Your task to perform on an android device: Set an alarmfor 5pm Image 0: 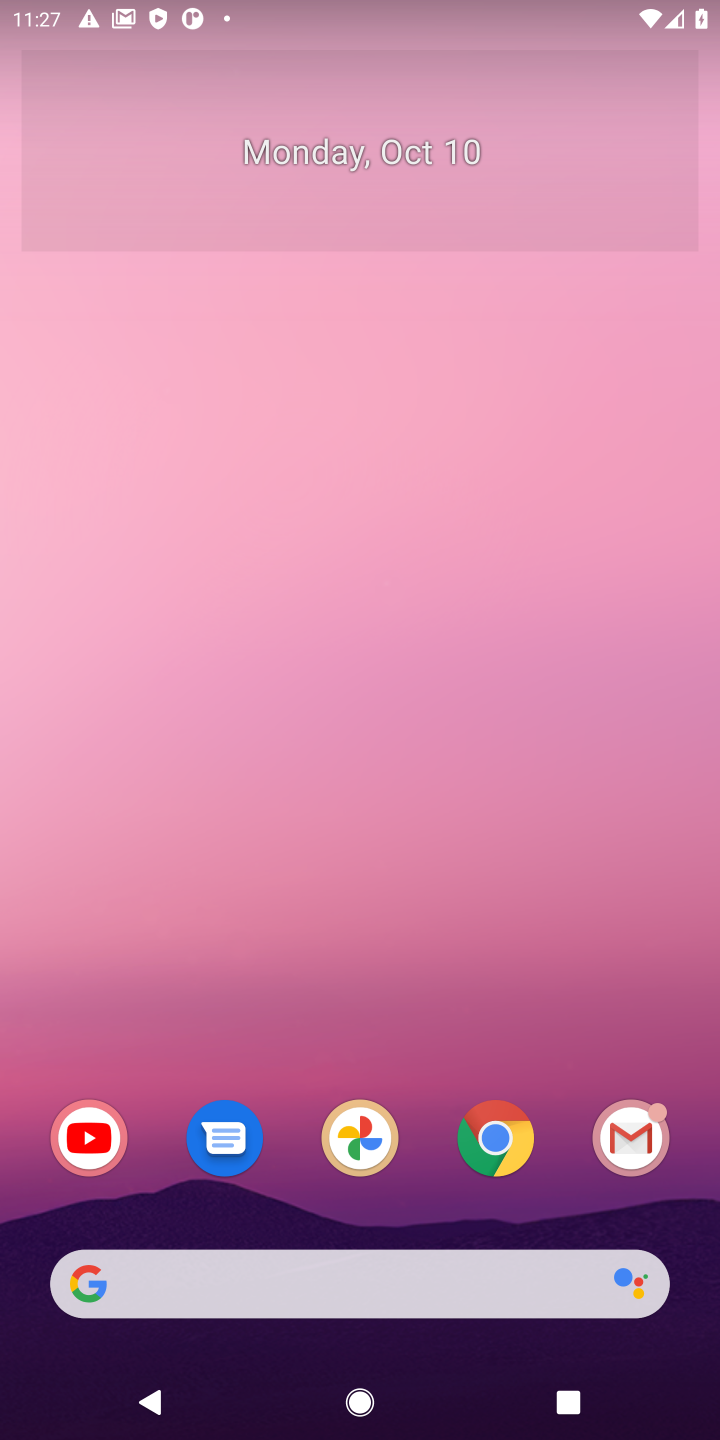
Step 0: press home button
Your task to perform on an android device: Set an alarmfor 5pm Image 1: 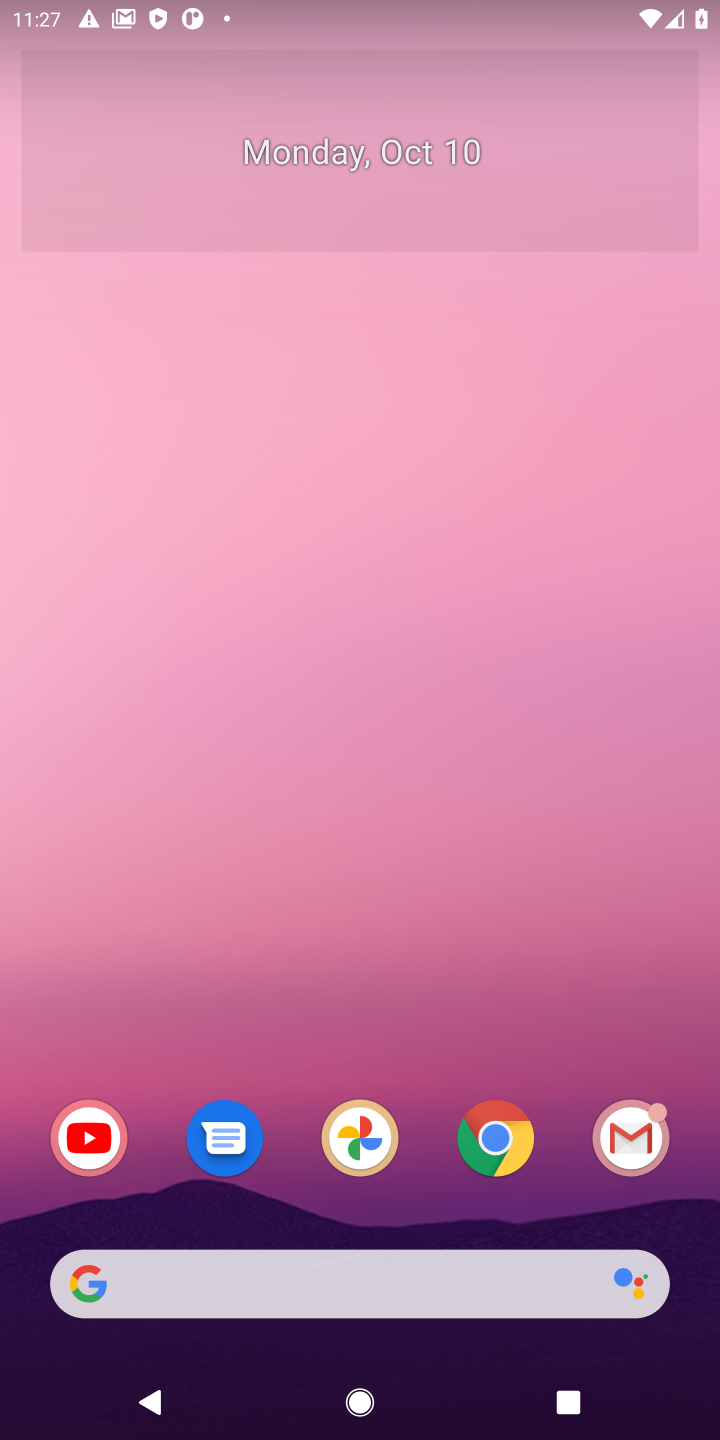
Step 1: drag from (403, 1196) to (344, 329)
Your task to perform on an android device: Set an alarmfor 5pm Image 2: 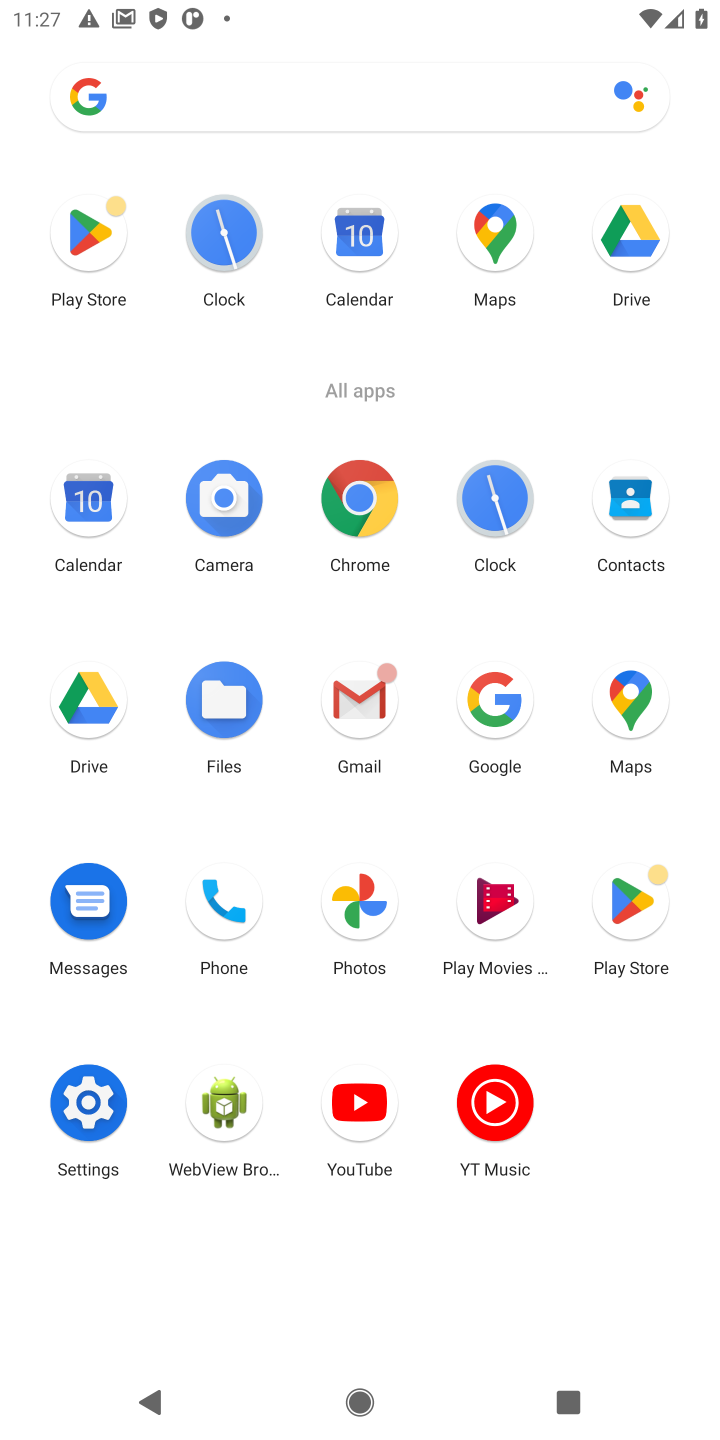
Step 2: click (506, 483)
Your task to perform on an android device: Set an alarmfor 5pm Image 3: 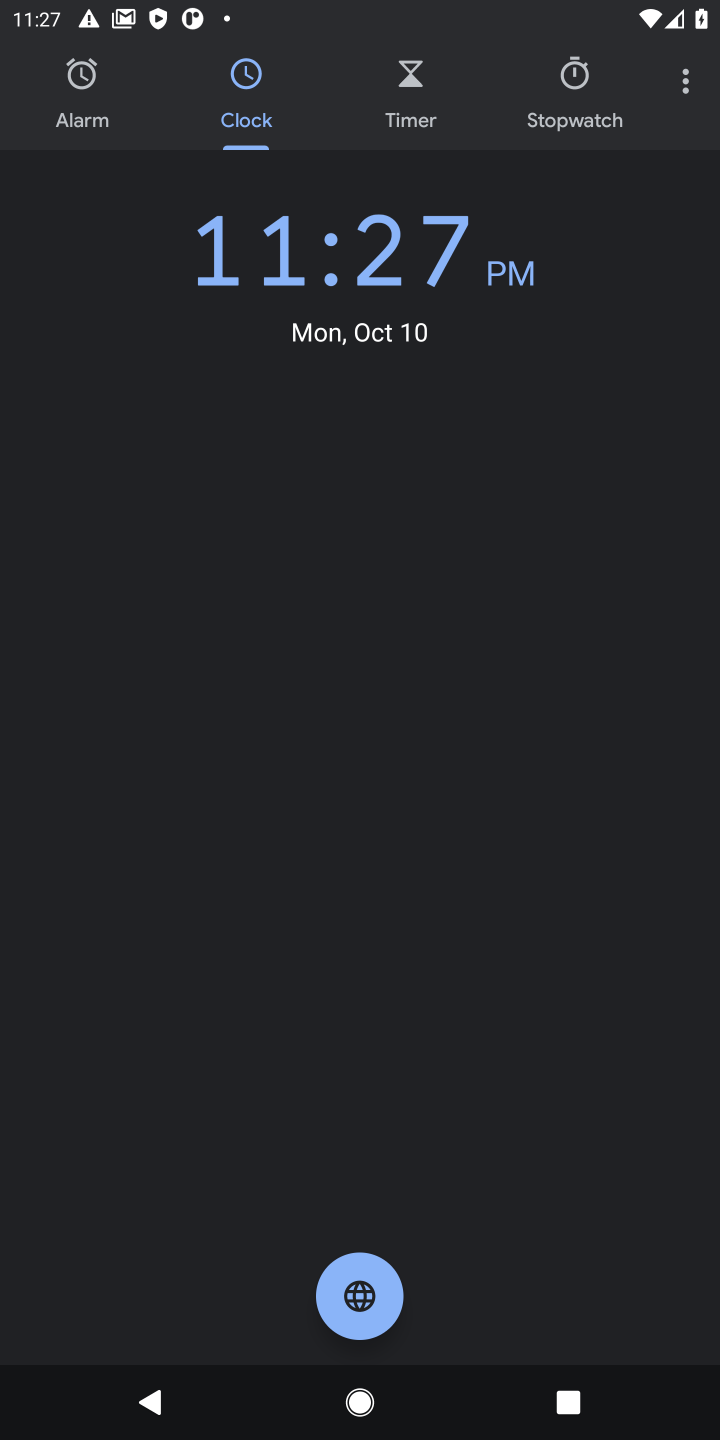
Step 3: click (90, 86)
Your task to perform on an android device: Set an alarmfor 5pm Image 4: 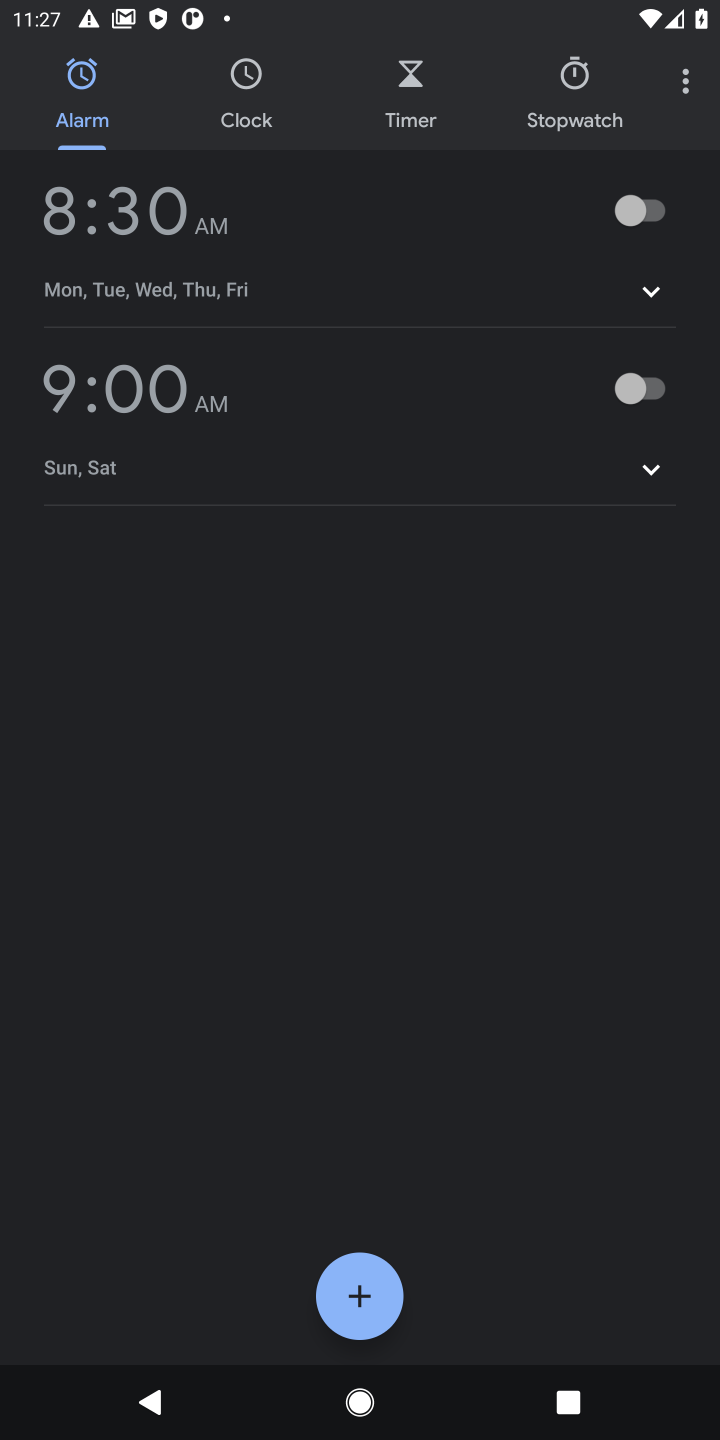
Step 4: click (120, 220)
Your task to perform on an android device: Set an alarmfor 5pm Image 5: 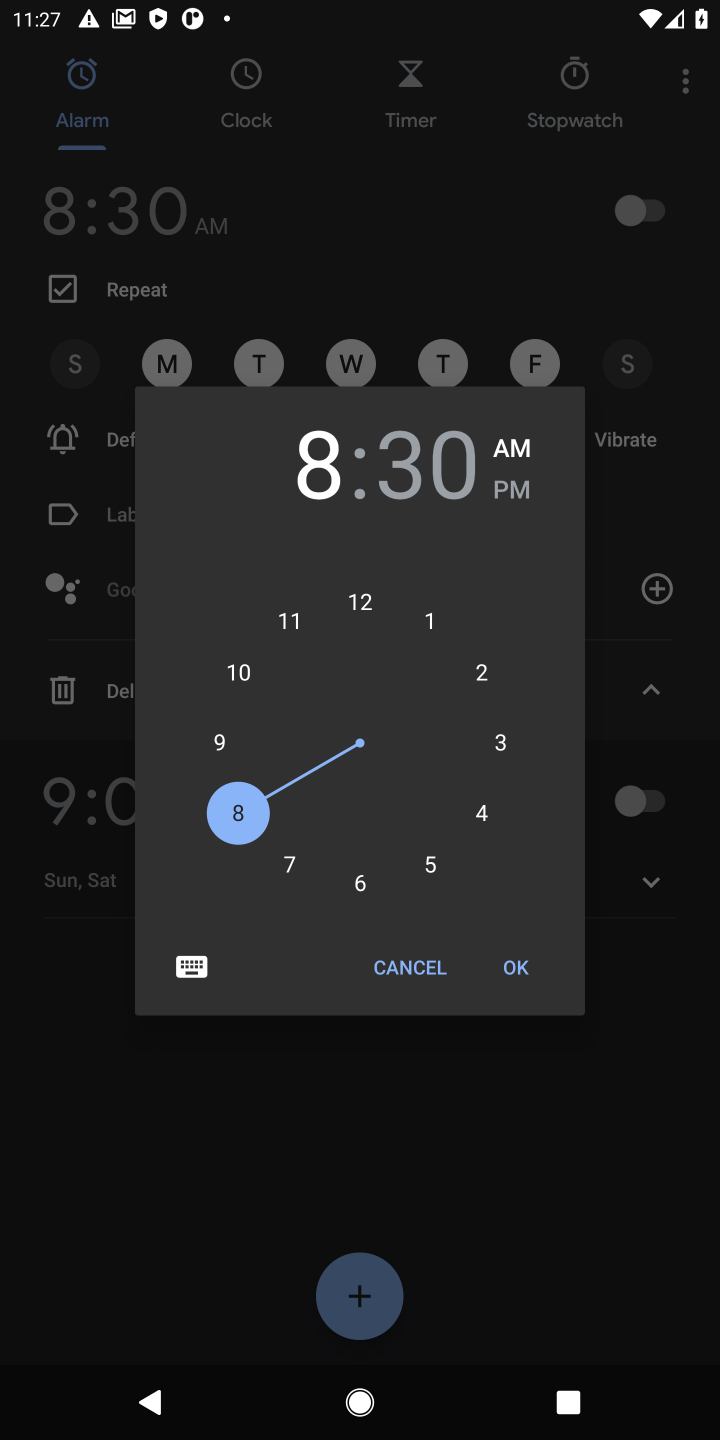
Step 5: click (512, 497)
Your task to perform on an android device: Set an alarmfor 5pm Image 6: 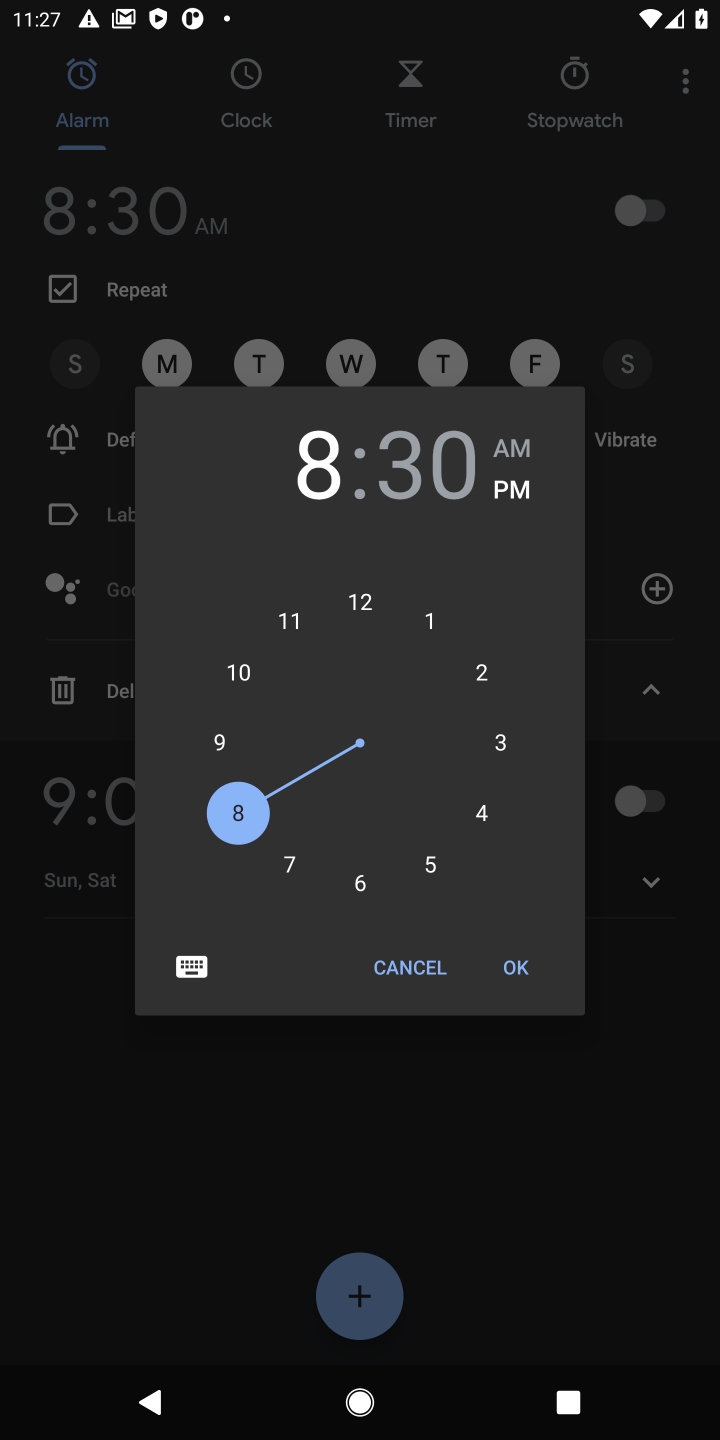
Step 6: click (428, 867)
Your task to perform on an android device: Set an alarmfor 5pm Image 7: 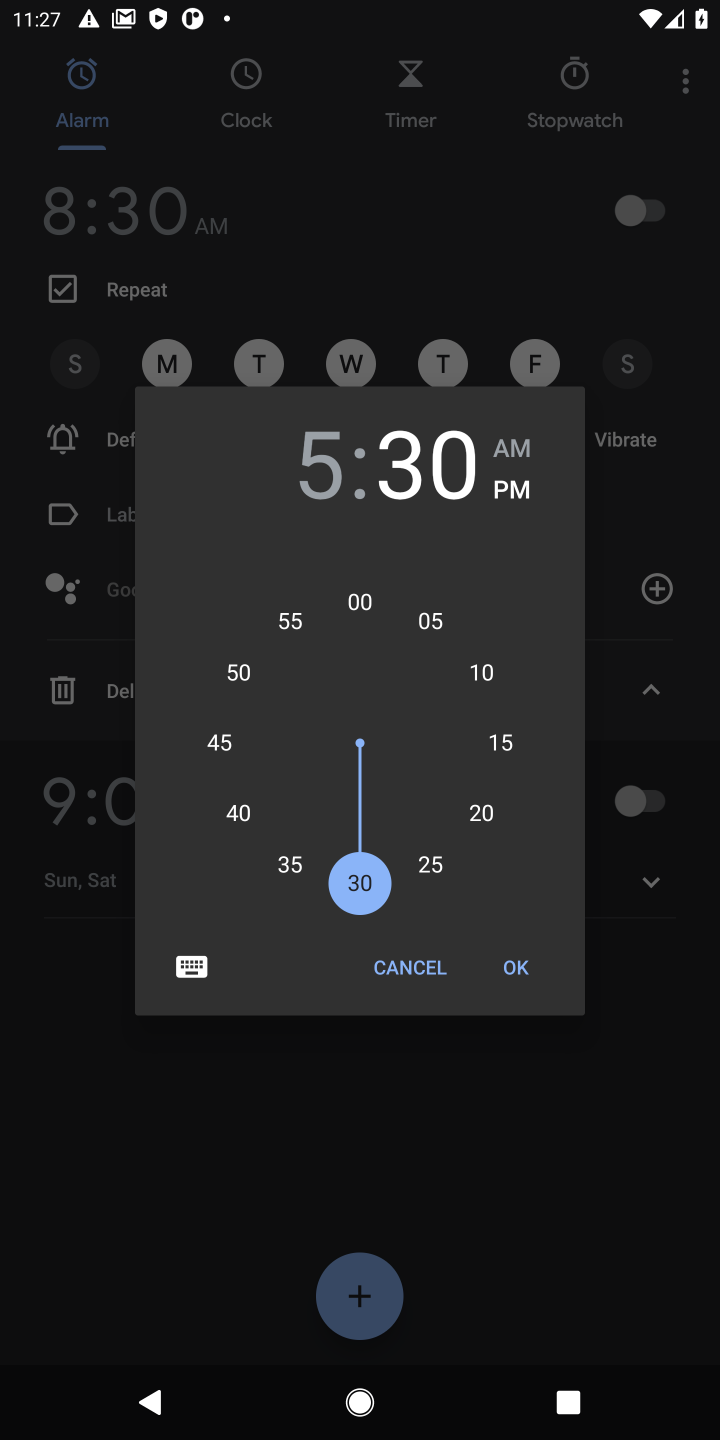
Step 7: click (410, 474)
Your task to perform on an android device: Set an alarmfor 5pm Image 8: 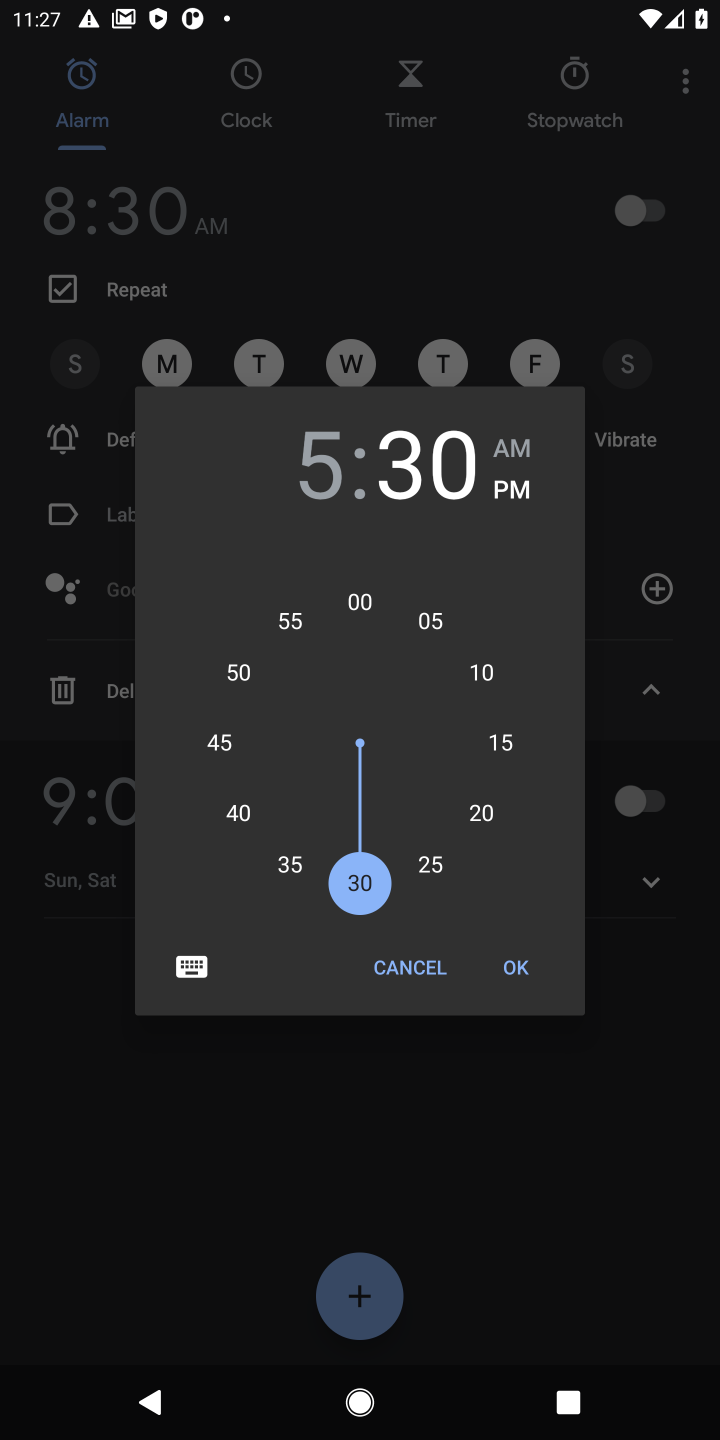
Step 8: drag from (355, 886) to (288, 583)
Your task to perform on an android device: Set an alarmfor 5pm Image 9: 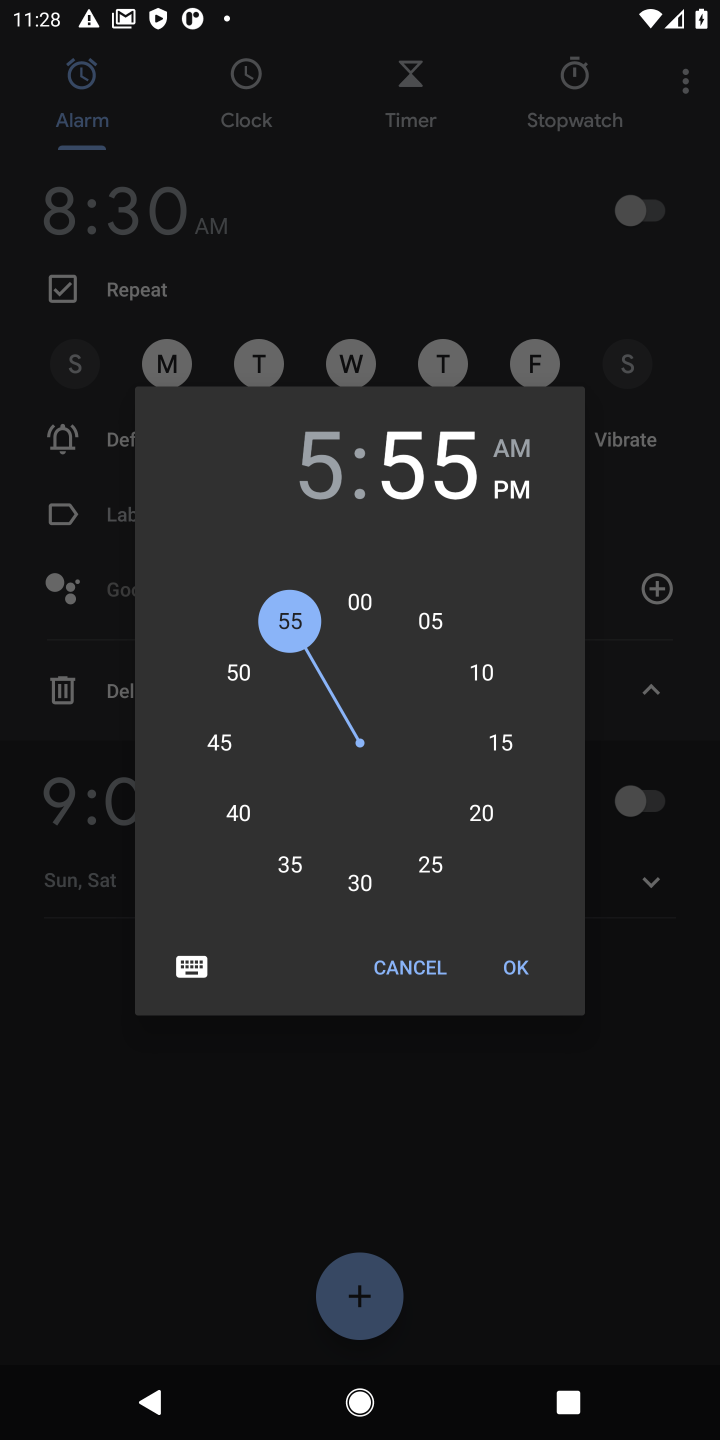
Step 9: click (357, 605)
Your task to perform on an android device: Set an alarmfor 5pm Image 10: 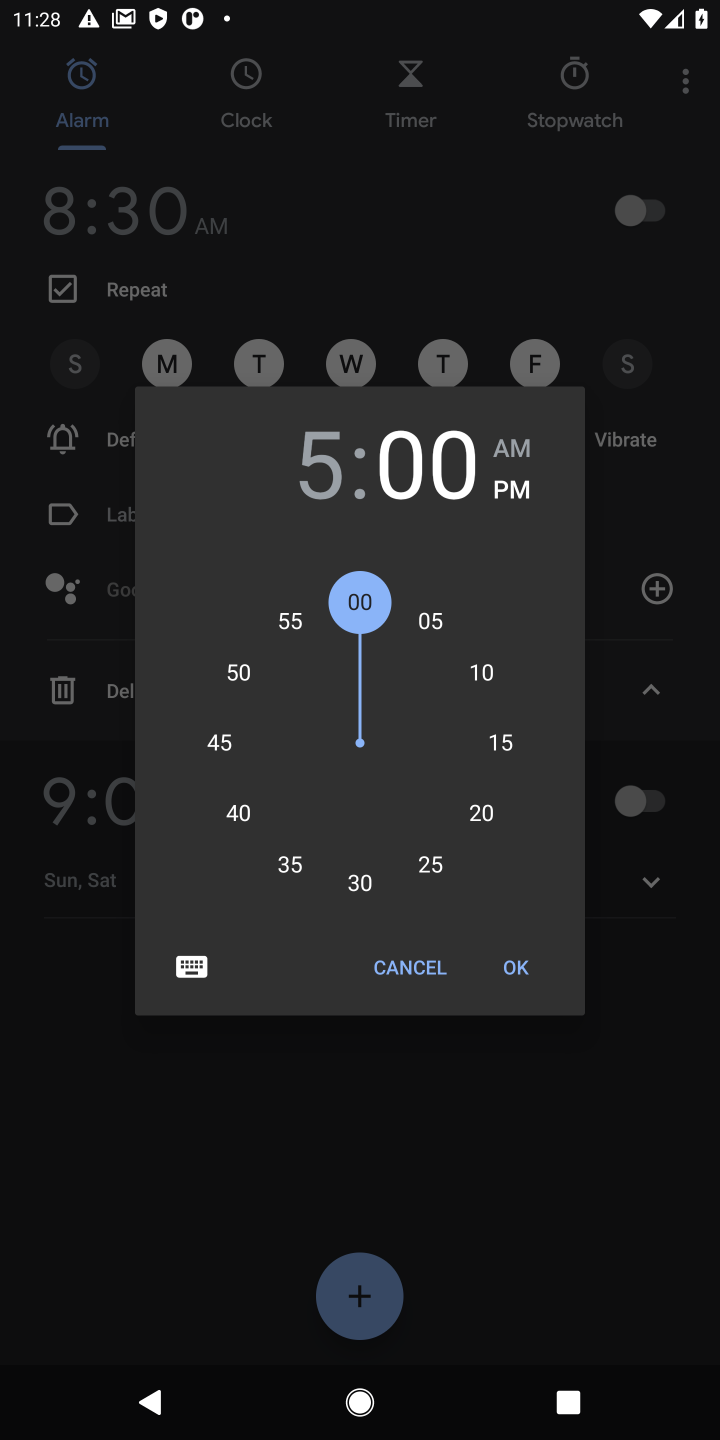
Step 10: click (516, 486)
Your task to perform on an android device: Set an alarmfor 5pm Image 11: 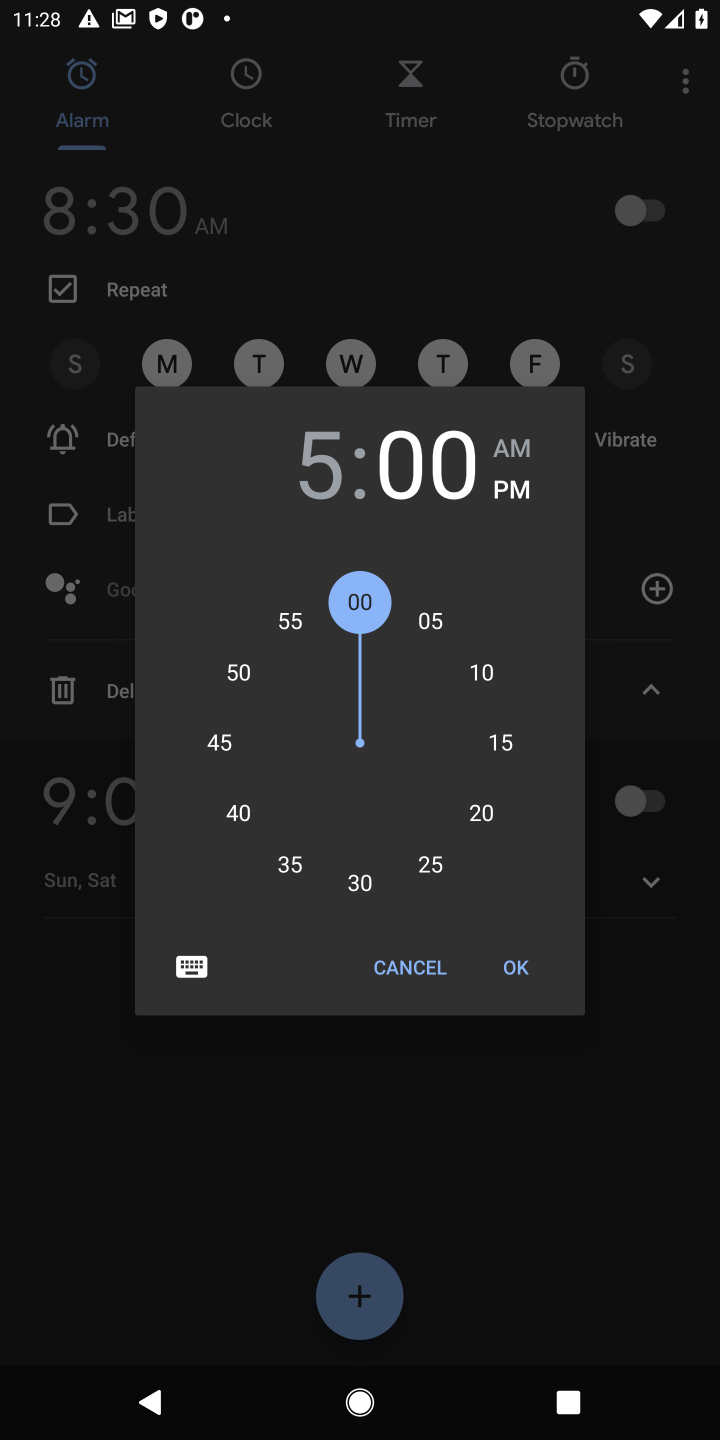
Step 11: click (521, 952)
Your task to perform on an android device: Set an alarmfor 5pm Image 12: 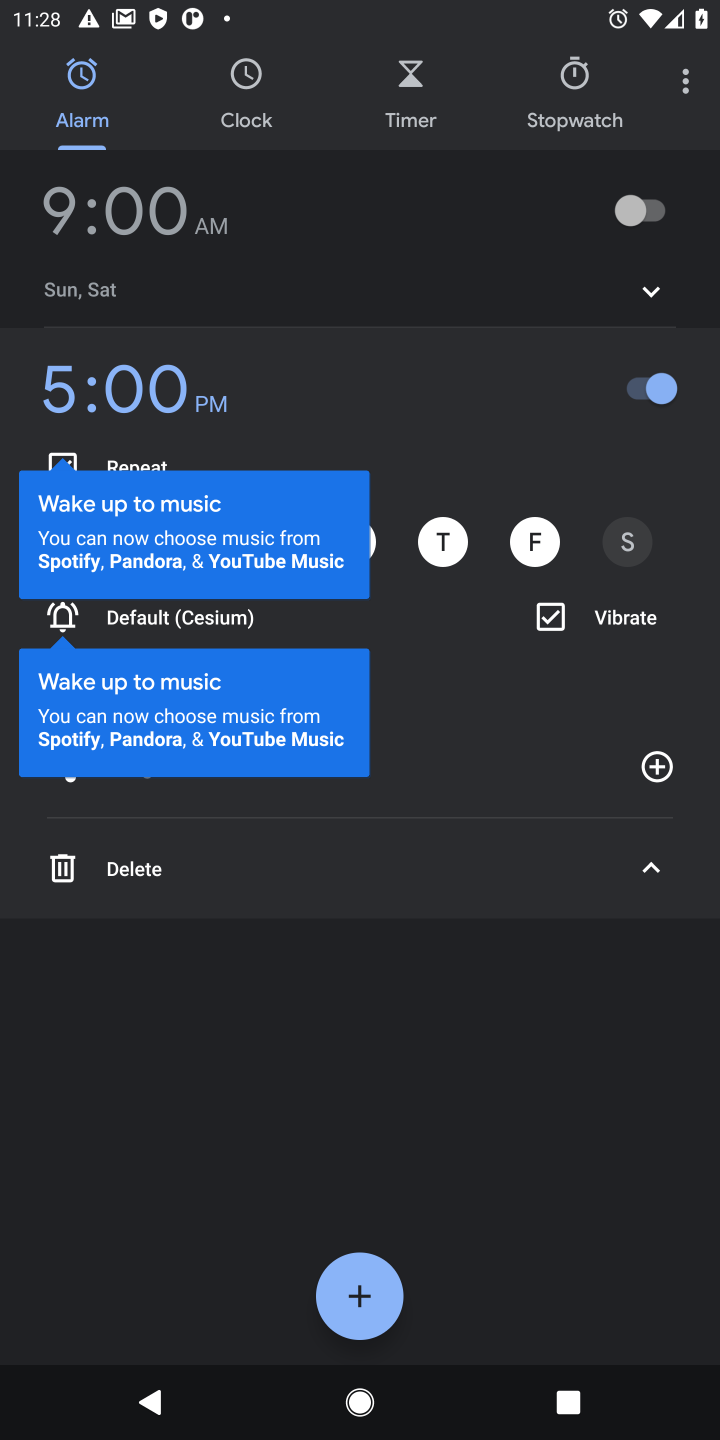
Step 12: task complete